Your task to perform on an android device: allow notifications from all sites in the chrome app Image 0: 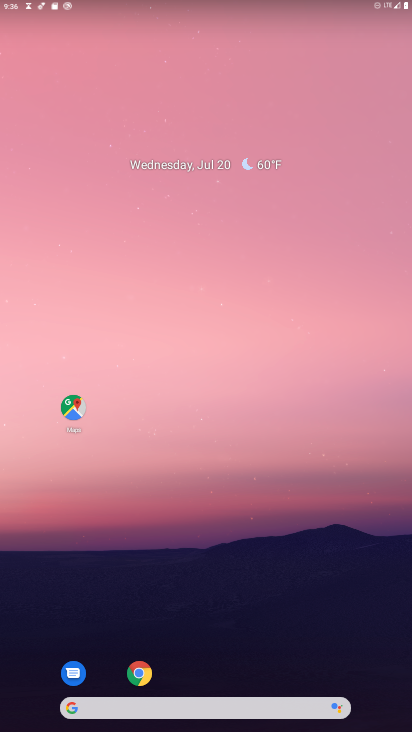
Step 0: click (139, 681)
Your task to perform on an android device: allow notifications from all sites in the chrome app Image 1: 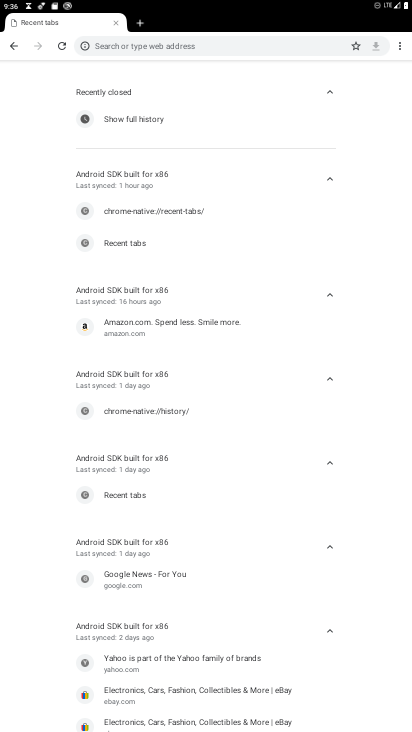
Step 1: click (399, 43)
Your task to perform on an android device: allow notifications from all sites in the chrome app Image 2: 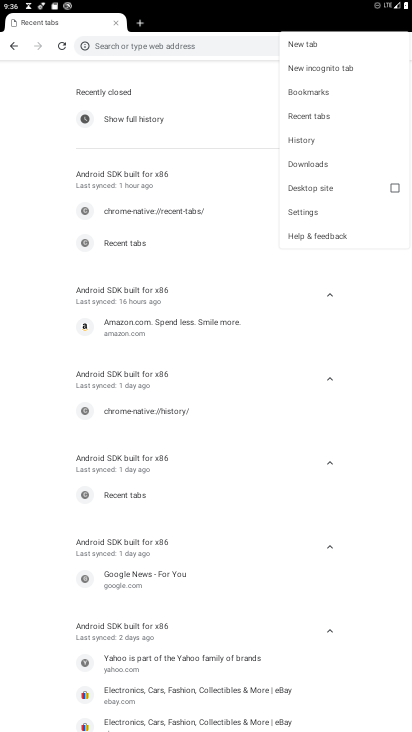
Step 2: click (317, 210)
Your task to perform on an android device: allow notifications from all sites in the chrome app Image 3: 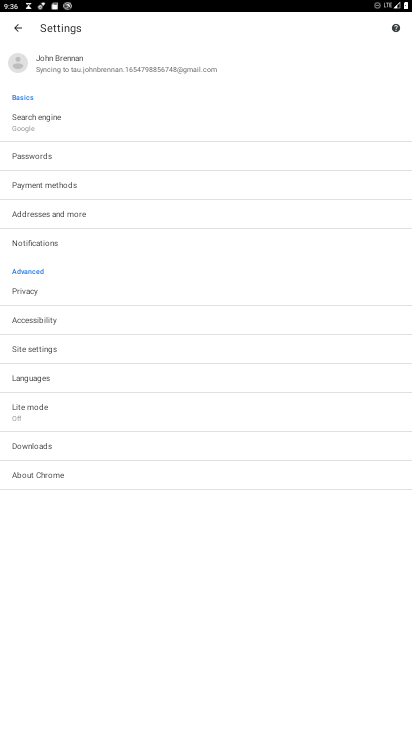
Step 3: click (63, 243)
Your task to perform on an android device: allow notifications from all sites in the chrome app Image 4: 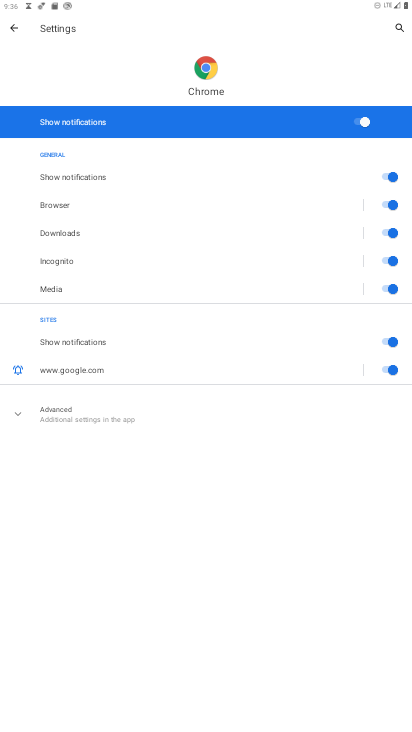
Step 4: task complete